Your task to perform on an android device: Set the phone to "Do not disturb". Image 0: 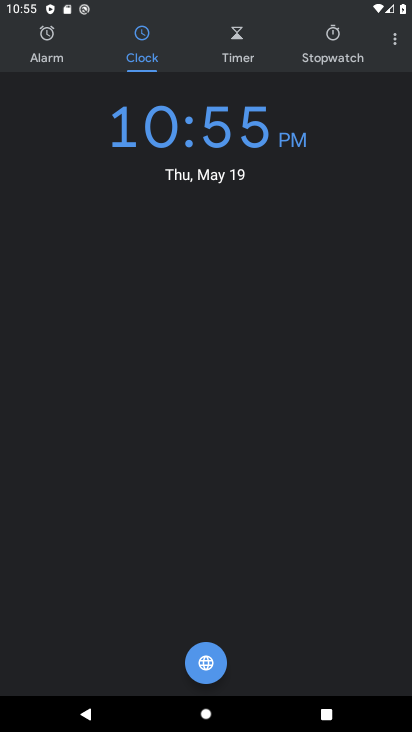
Step 0: drag from (280, 4) to (232, 637)
Your task to perform on an android device: Set the phone to "Do not disturb". Image 1: 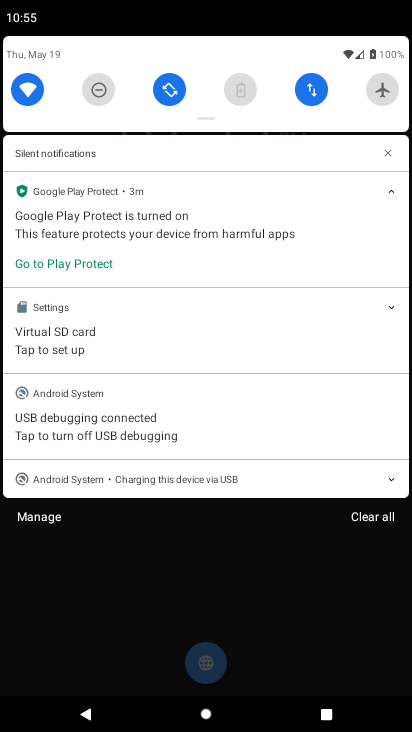
Step 1: click (92, 90)
Your task to perform on an android device: Set the phone to "Do not disturb". Image 2: 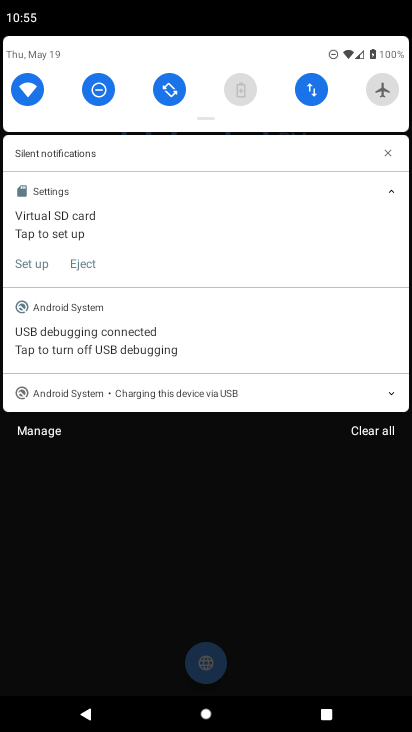
Step 2: task complete